Your task to perform on an android device: set default search engine in the chrome app Image 0: 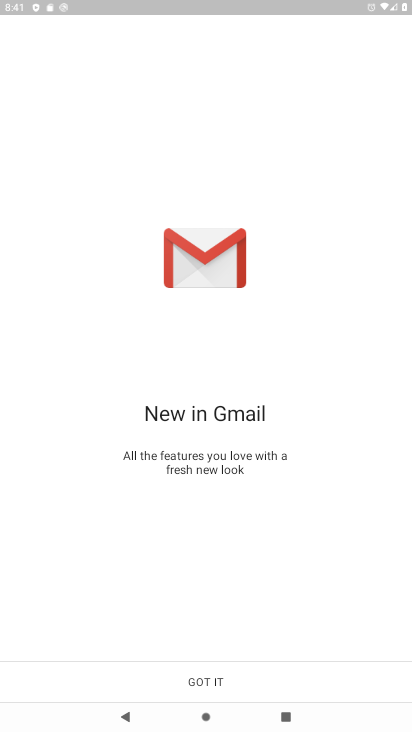
Step 0: press home button
Your task to perform on an android device: set default search engine in the chrome app Image 1: 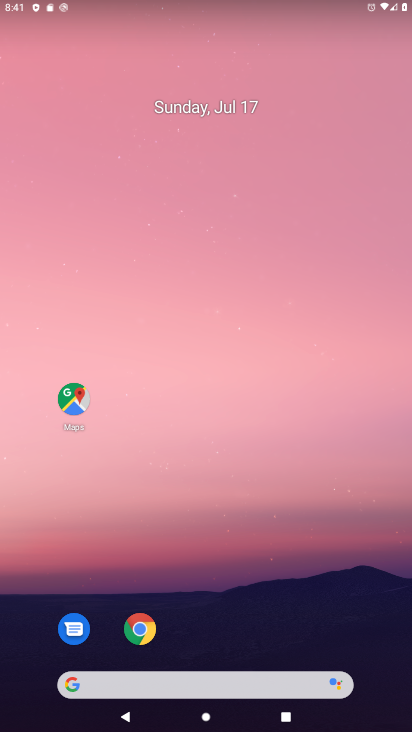
Step 1: click (132, 625)
Your task to perform on an android device: set default search engine in the chrome app Image 2: 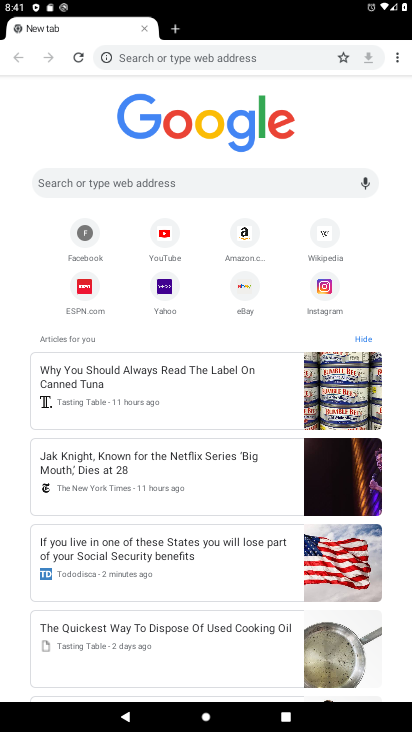
Step 2: click (394, 56)
Your task to perform on an android device: set default search engine in the chrome app Image 3: 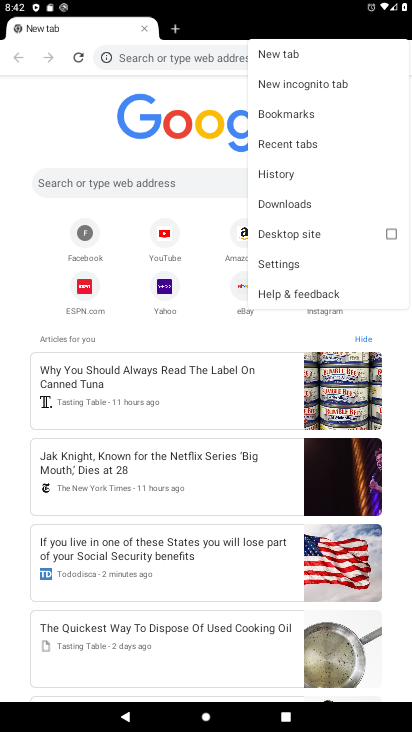
Step 3: click (282, 259)
Your task to perform on an android device: set default search engine in the chrome app Image 4: 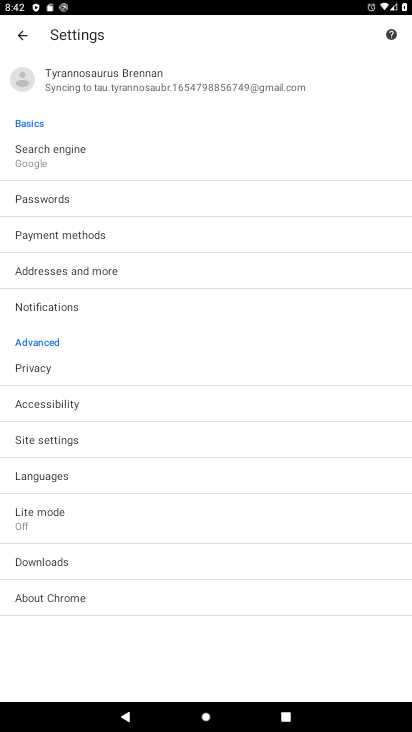
Step 4: click (57, 161)
Your task to perform on an android device: set default search engine in the chrome app Image 5: 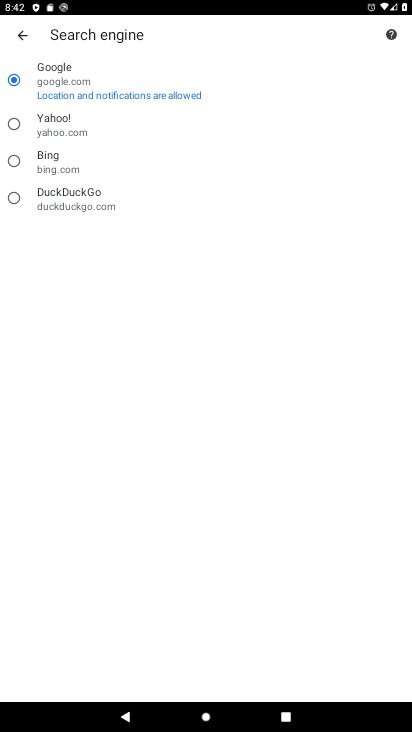
Step 5: click (45, 134)
Your task to perform on an android device: set default search engine in the chrome app Image 6: 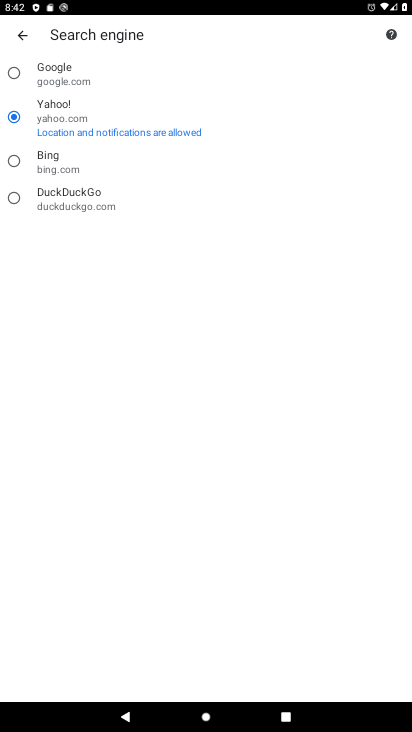
Step 6: task complete